Your task to perform on an android device: Open the calendar and show me this week's events? Image 0: 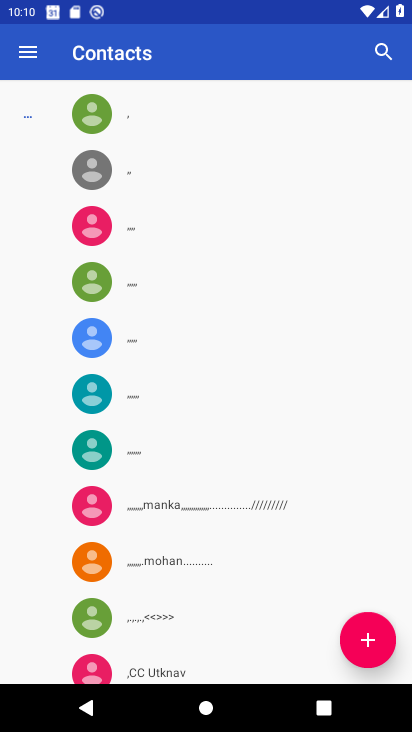
Step 0: press home button
Your task to perform on an android device: Open the calendar and show me this week's events? Image 1: 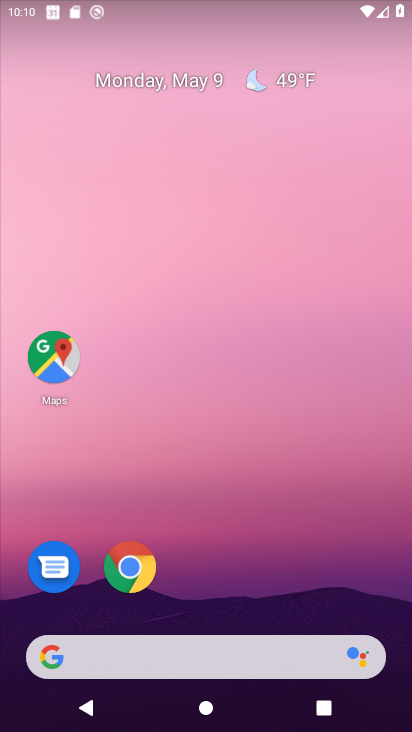
Step 1: drag from (174, 627) to (200, 268)
Your task to perform on an android device: Open the calendar and show me this week's events? Image 2: 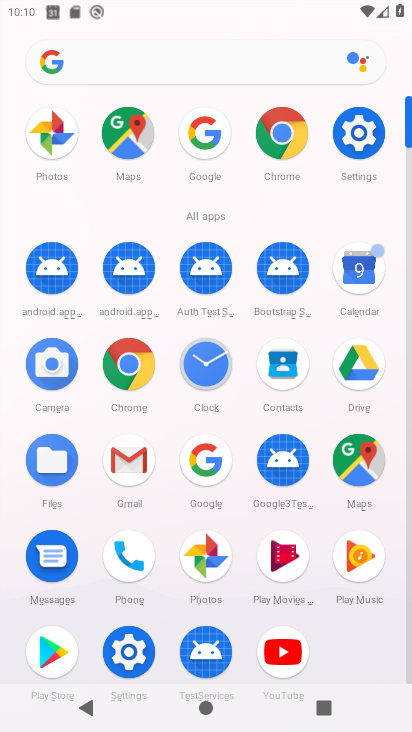
Step 2: click (350, 278)
Your task to perform on an android device: Open the calendar and show me this week's events? Image 3: 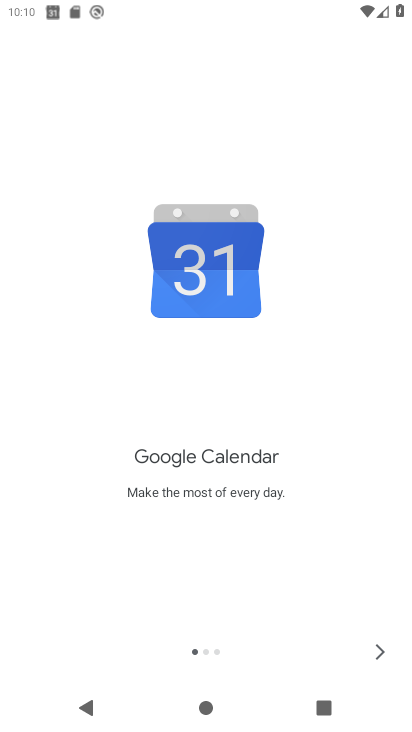
Step 3: click (377, 655)
Your task to perform on an android device: Open the calendar and show me this week's events? Image 4: 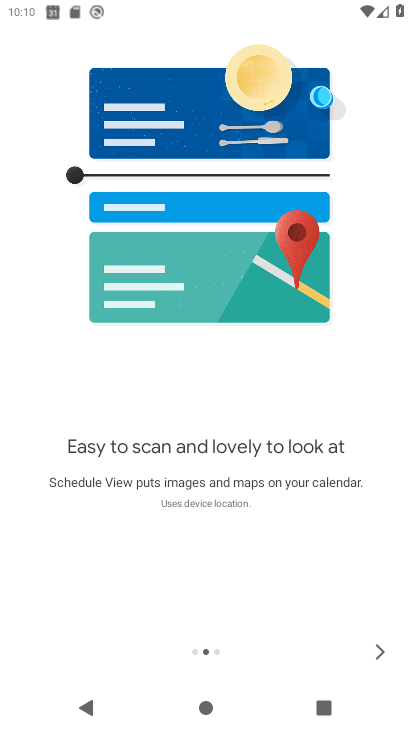
Step 4: click (374, 656)
Your task to perform on an android device: Open the calendar and show me this week's events? Image 5: 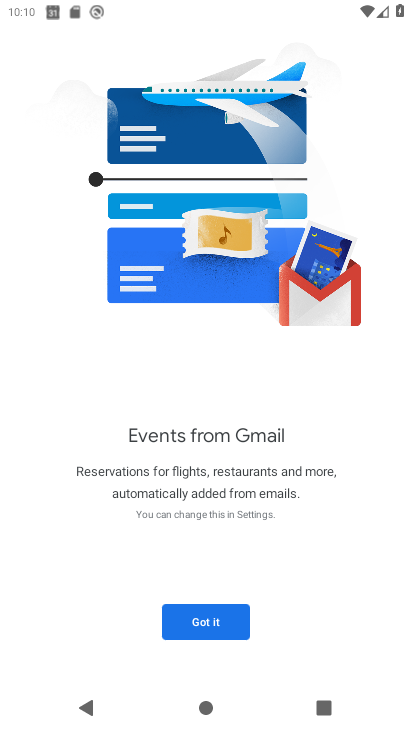
Step 5: click (202, 624)
Your task to perform on an android device: Open the calendar and show me this week's events? Image 6: 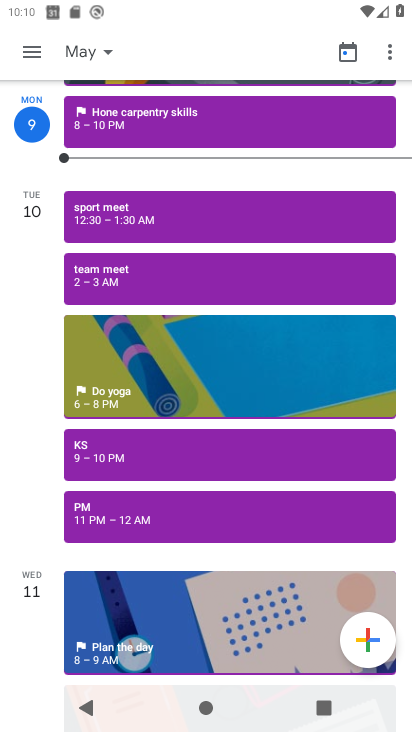
Step 6: task complete